Your task to perform on an android device: Go to internet settings Image 0: 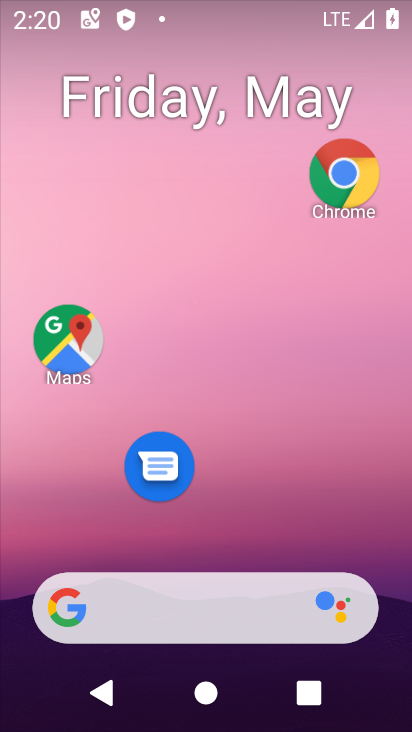
Step 0: drag from (324, 515) to (296, 102)
Your task to perform on an android device: Go to internet settings Image 1: 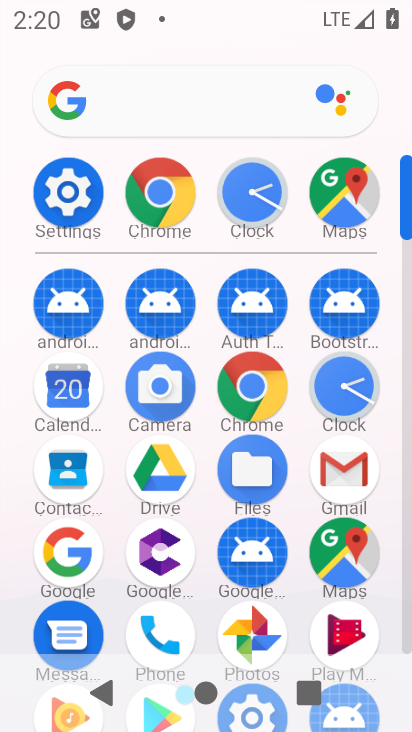
Step 1: click (67, 194)
Your task to perform on an android device: Go to internet settings Image 2: 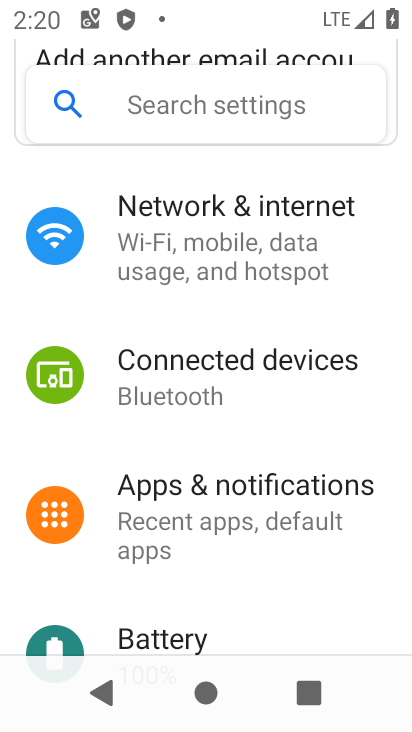
Step 2: click (203, 200)
Your task to perform on an android device: Go to internet settings Image 3: 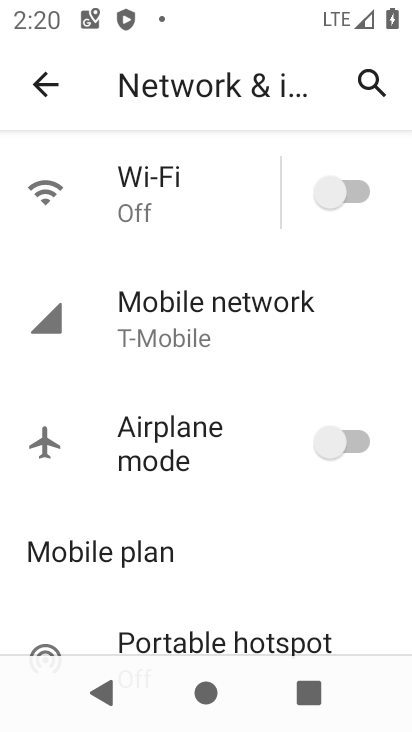
Step 3: task complete